Your task to perform on an android device: snooze an email in the gmail app Image 0: 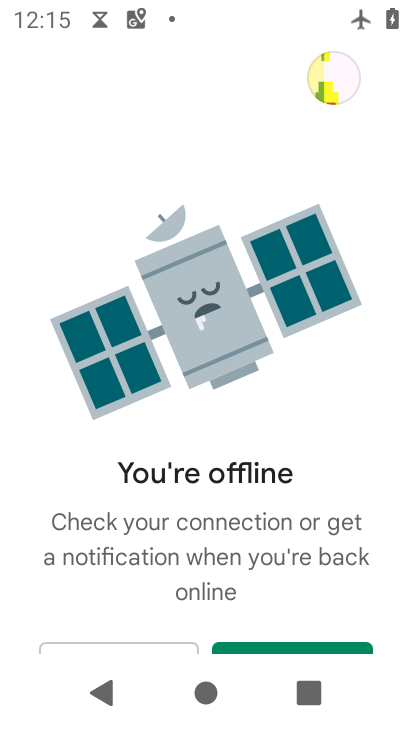
Step 0: press home button
Your task to perform on an android device: snooze an email in the gmail app Image 1: 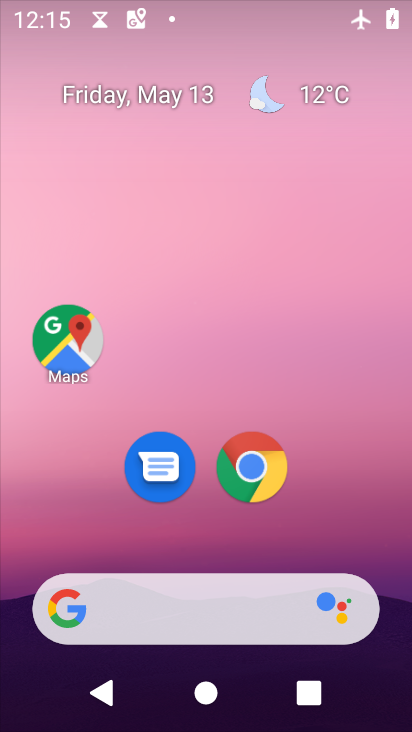
Step 1: drag from (303, 512) to (249, 76)
Your task to perform on an android device: snooze an email in the gmail app Image 2: 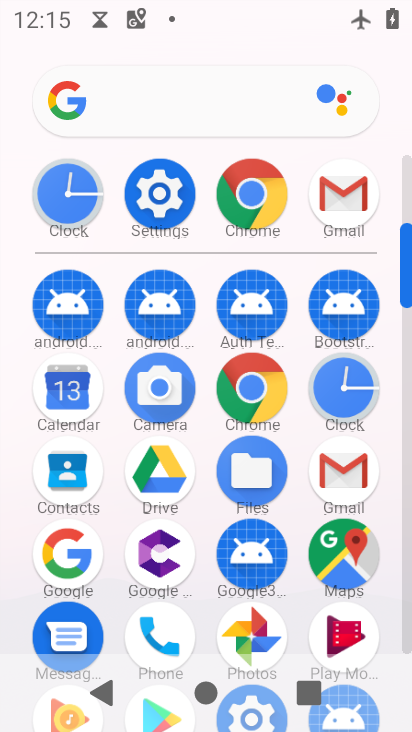
Step 2: click (341, 193)
Your task to perform on an android device: snooze an email in the gmail app Image 3: 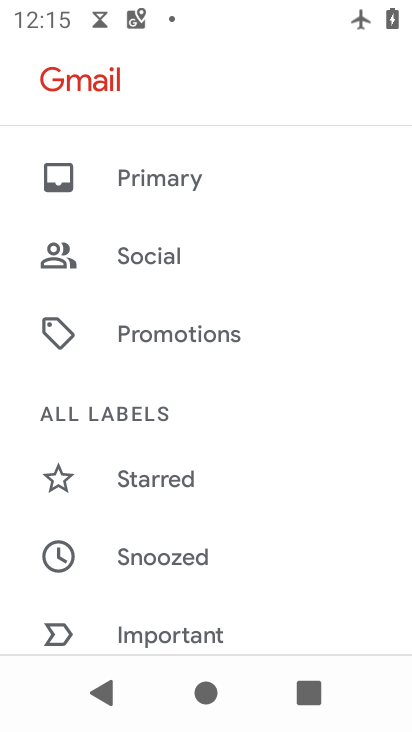
Step 3: drag from (265, 571) to (242, 116)
Your task to perform on an android device: snooze an email in the gmail app Image 4: 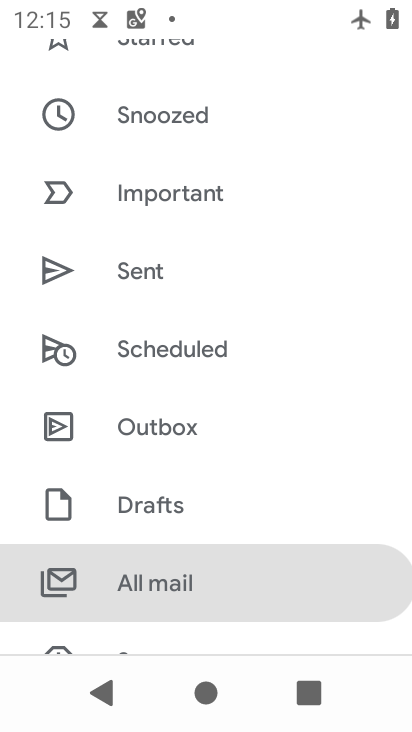
Step 4: click (207, 583)
Your task to perform on an android device: snooze an email in the gmail app Image 5: 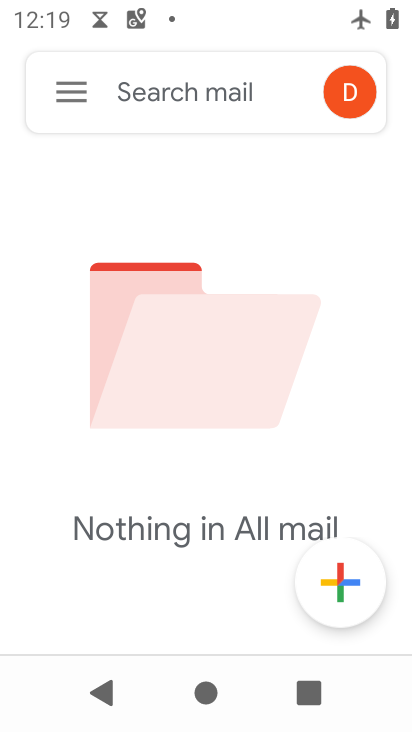
Step 5: task complete